Your task to perform on an android device: star an email in the gmail app Image 0: 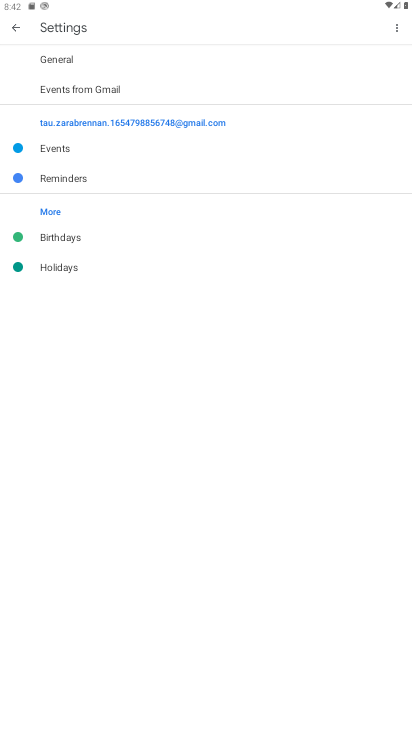
Step 0: press home button
Your task to perform on an android device: star an email in the gmail app Image 1: 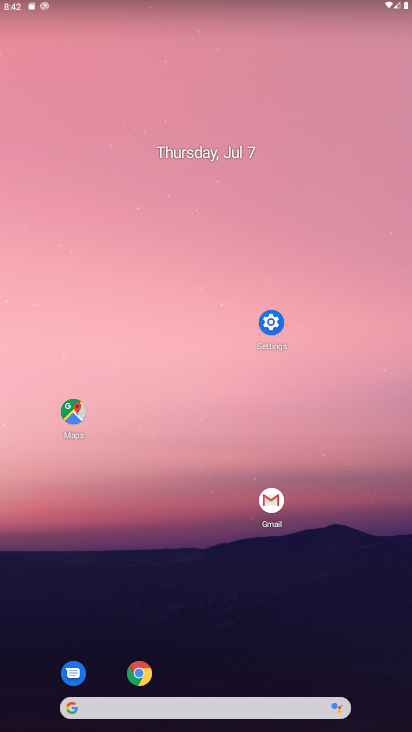
Step 1: click (278, 512)
Your task to perform on an android device: star an email in the gmail app Image 2: 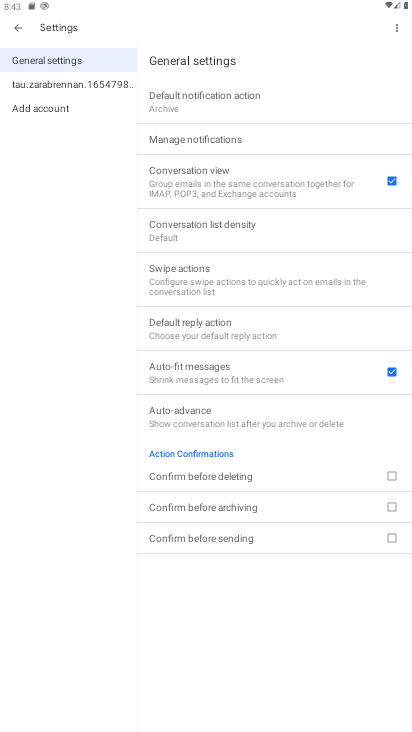
Step 2: click (13, 27)
Your task to perform on an android device: star an email in the gmail app Image 3: 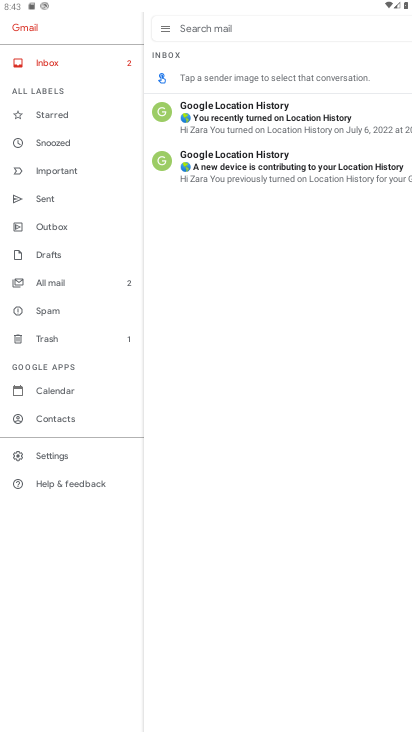
Step 3: click (13, 27)
Your task to perform on an android device: star an email in the gmail app Image 4: 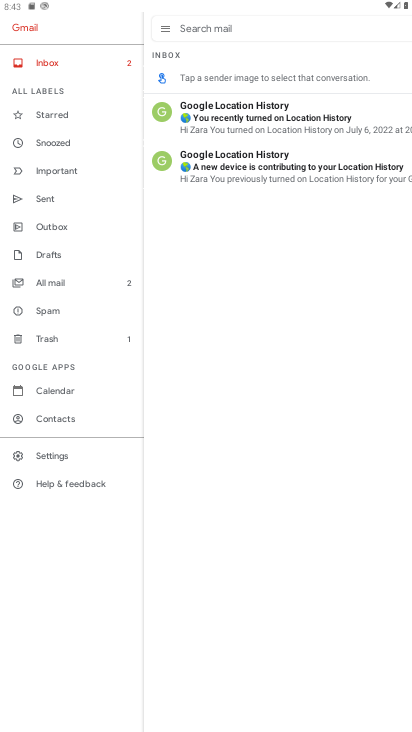
Step 4: click (267, 122)
Your task to perform on an android device: star an email in the gmail app Image 5: 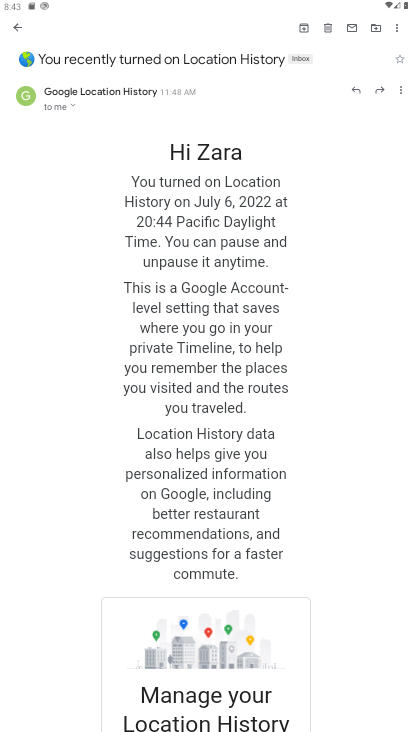
Step 5: click (395, 53)
Your task to perform on an android device: star an email in the gmail app Image 6: 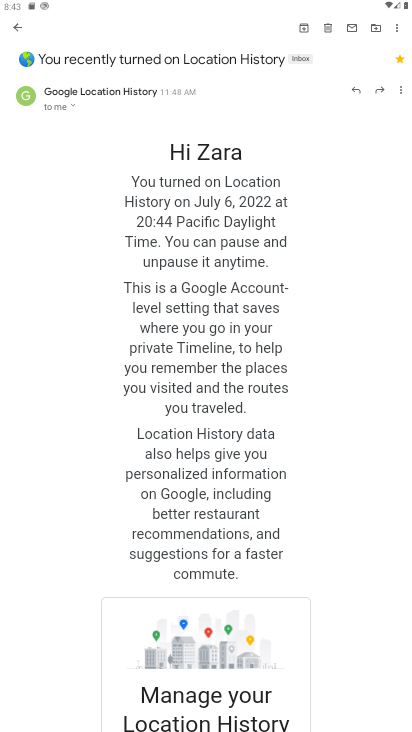
Step 6: task complete